Your task to perform on an android device: Open settings on Google Maps Image 0: 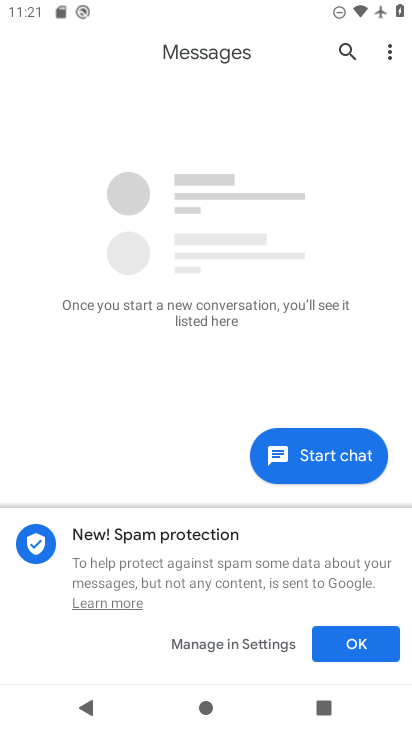
Step 0: press home button
Your task to perform on an android device: Open settings on Google Maps Image 1: 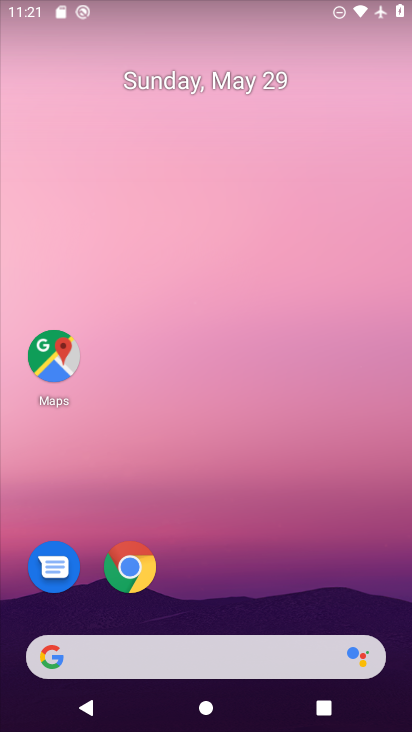
Step 1: click (55, 356)
Your task to perform on an android device: Open settings on Google Maps Image 2: 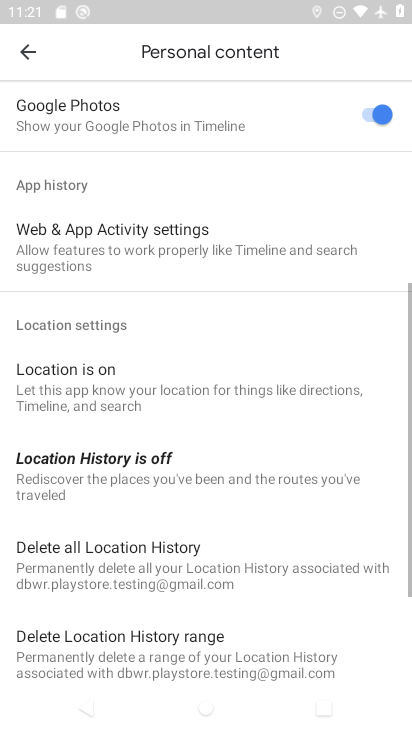
Step 2: task complete